Your task to perform on an android device: toggle sleep mode Image 0: 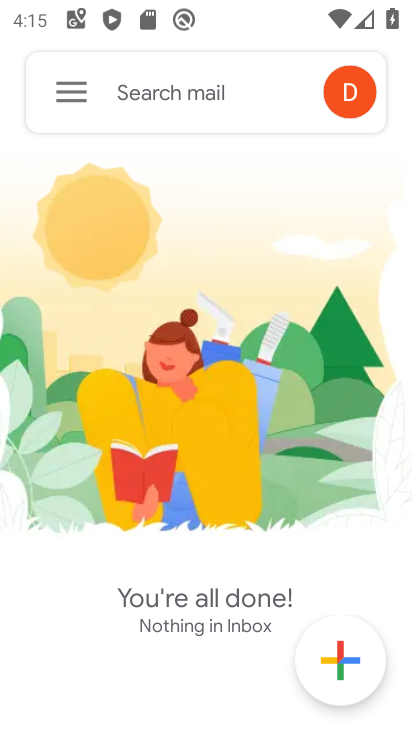
Step 0: press home button
Your task to perform on an android device: toggle sleep mode Image 1: 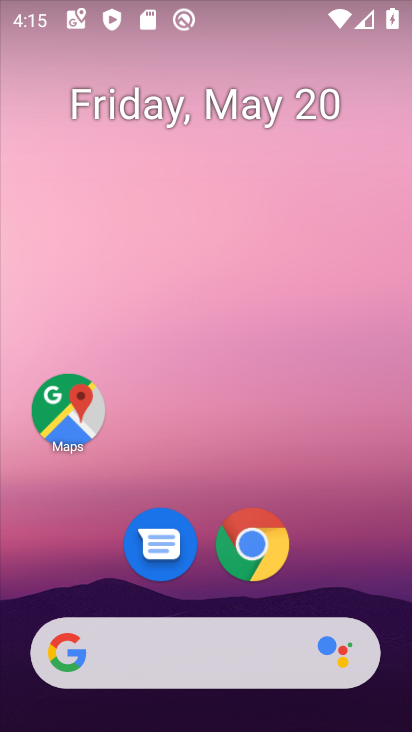
Step 1: drag from (331, 596) to (342, 0)
Your task to perform on an android device: toggle sleep mode Image 2: 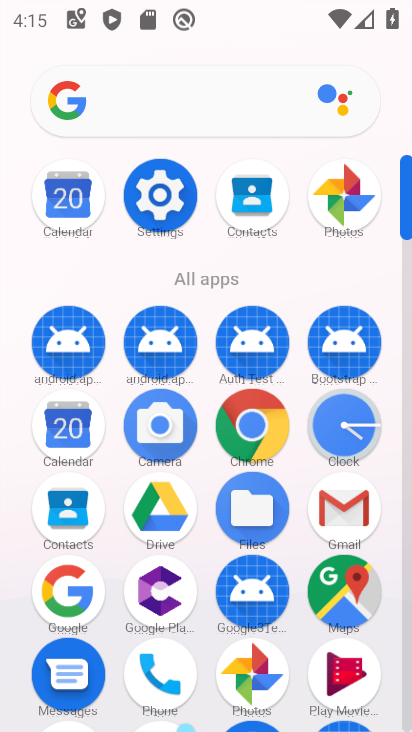
Step 2: click (155, 193)
Your task to perform on an android device: toggle sleep mode Image 3: 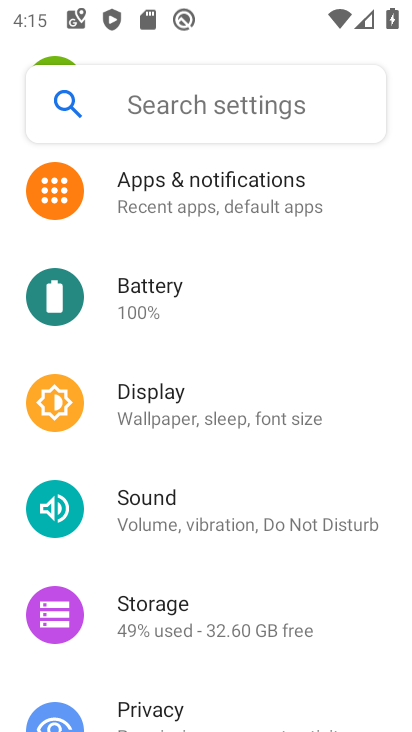
Step 3: click (144, 417)
Your task to perform on an android device: toggle sleep mode Image 4: 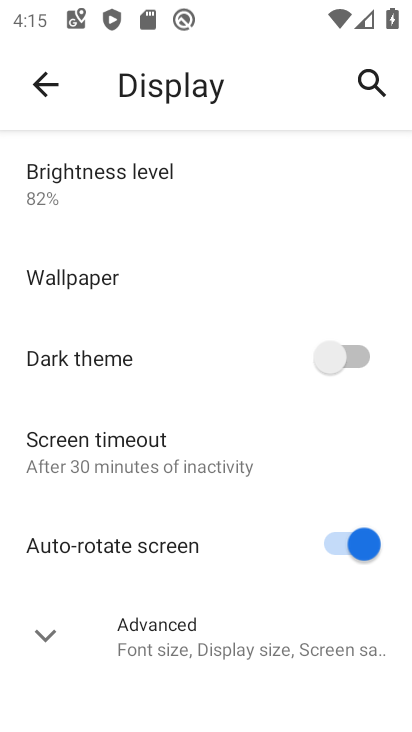
Step 4: click (49, 643)
Your task to perform on an android device: toggle sleep mode Image 5: 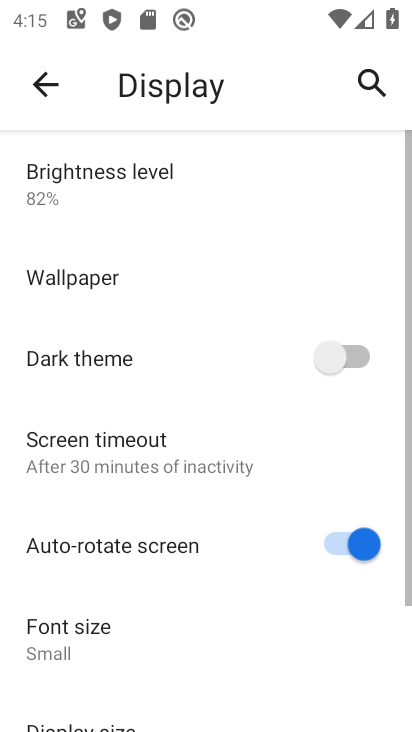
Step 5: task complete